Your task to perform on an android device: open app "AliExpress" Image 0: 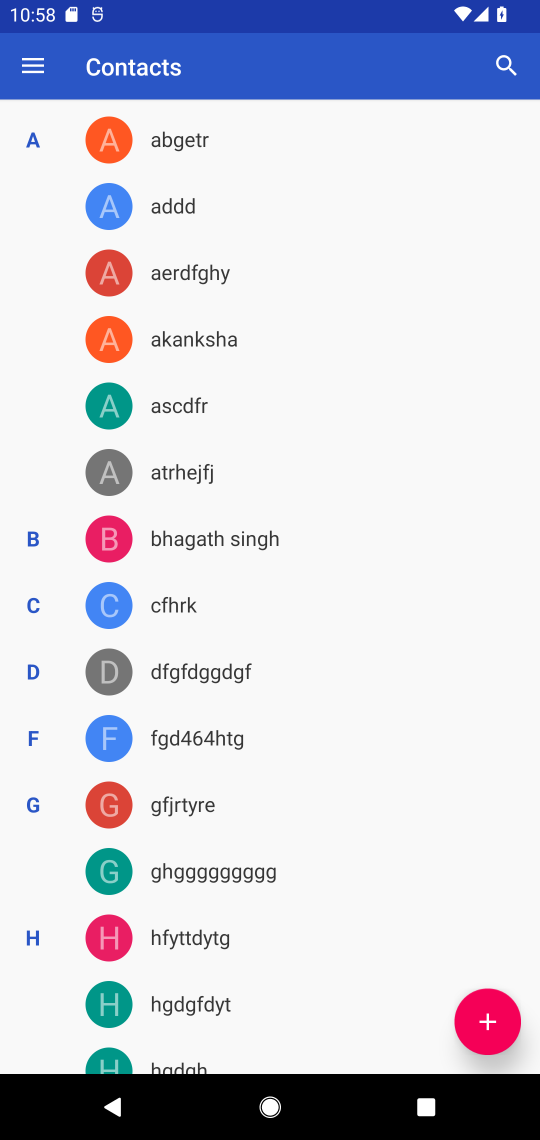
Step 0: press home button
Your task to perform on an android device: open app "AliExpress" Image 1: 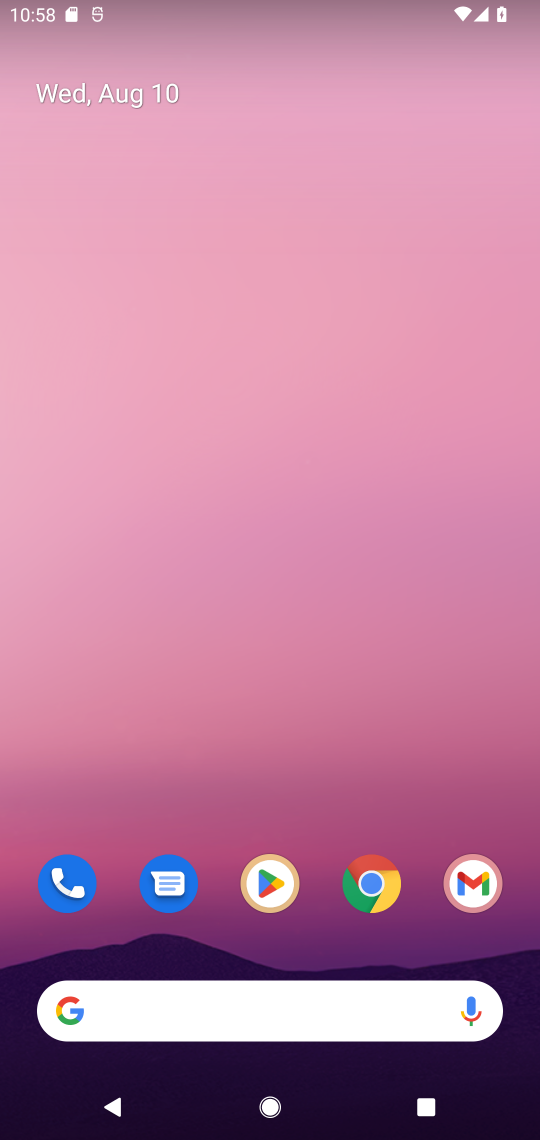
Step 1: click (262, 880)
Your task to perform on an android device: open app "AliExpress" Image 2: 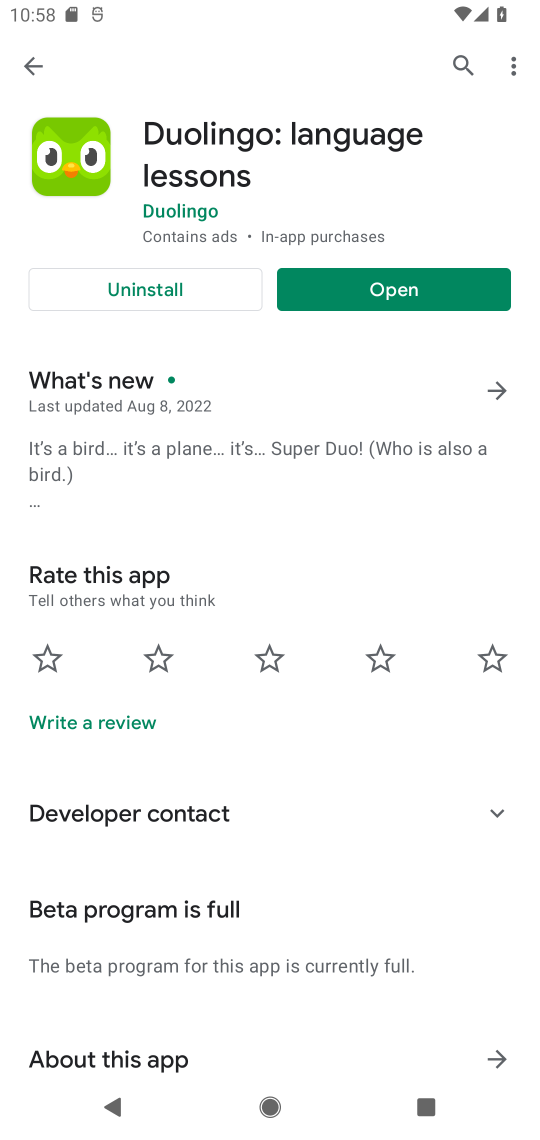
Step 2: click (459, 58)
Your task to perform on an android device: open app "AliExpress" Image 3: 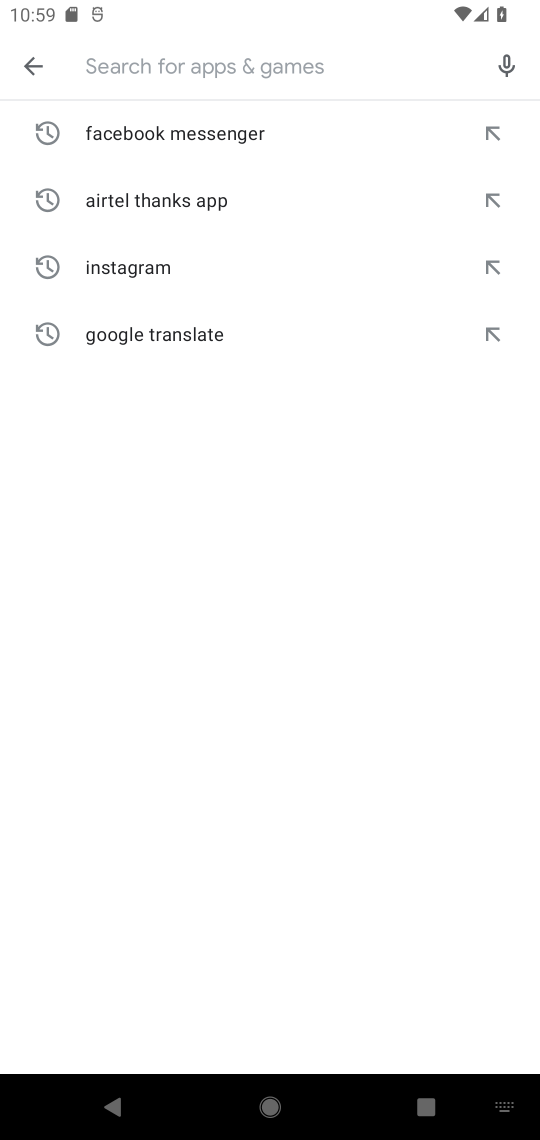
Step 3: type "AliExpress"
Your task to perform on an android device: open app "AliExpress" Image 4: 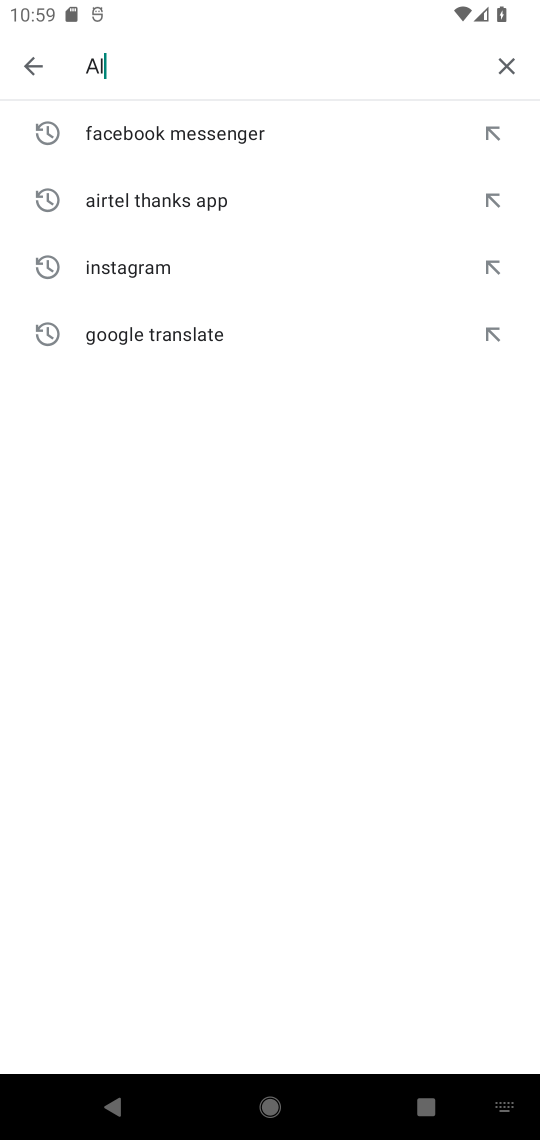
Step 4: type ""
Your task to perform on an android device: open app "AliExpress" Image 5: 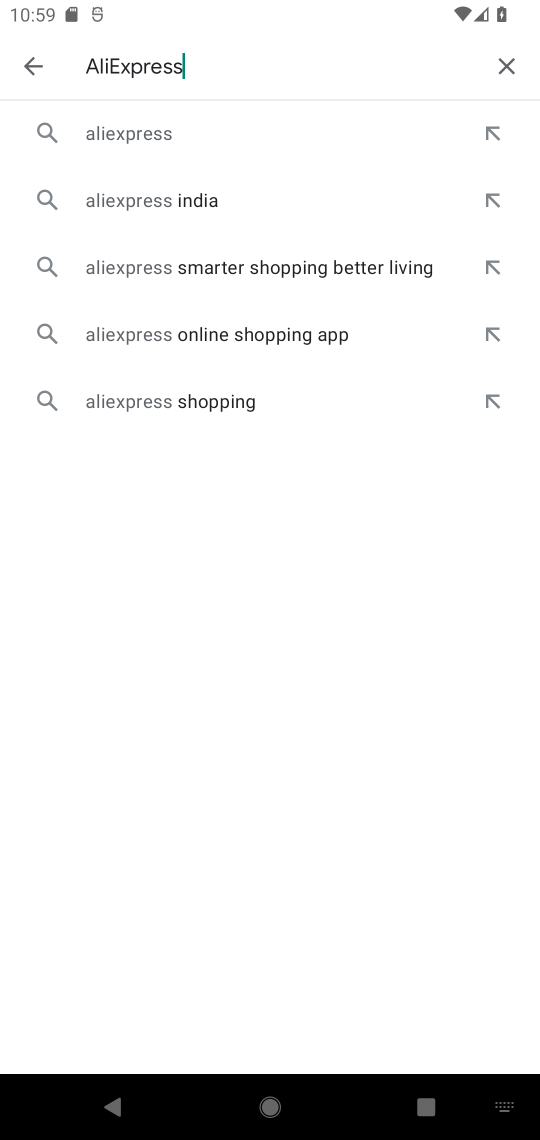
Step 5: click (94, 134)
Your task to perform on an android device: open app "AliExpress" Image 6: 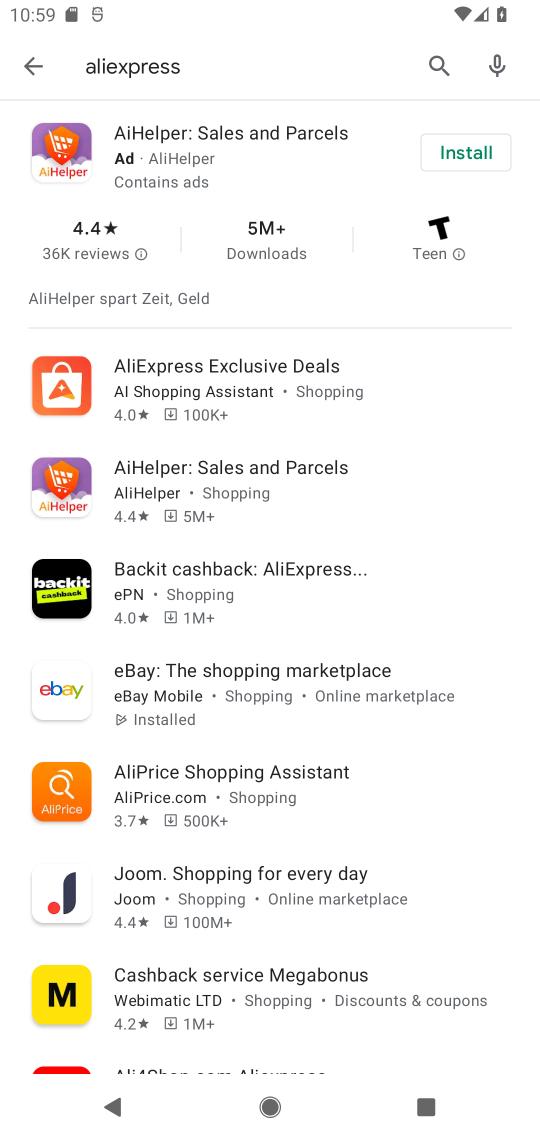
Step 6: click (237, 347)
Your task to perform on an android device: open app "AliExpress" Image 7: 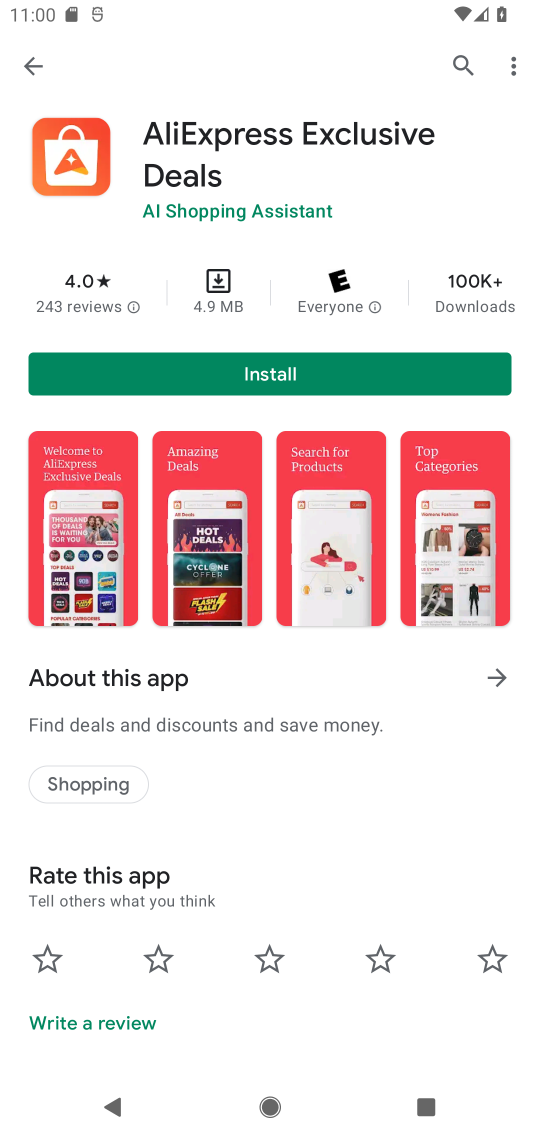
Step 7: click (296, 371)
Your task to perform on an android device: open app "AliExpress" Image 8: 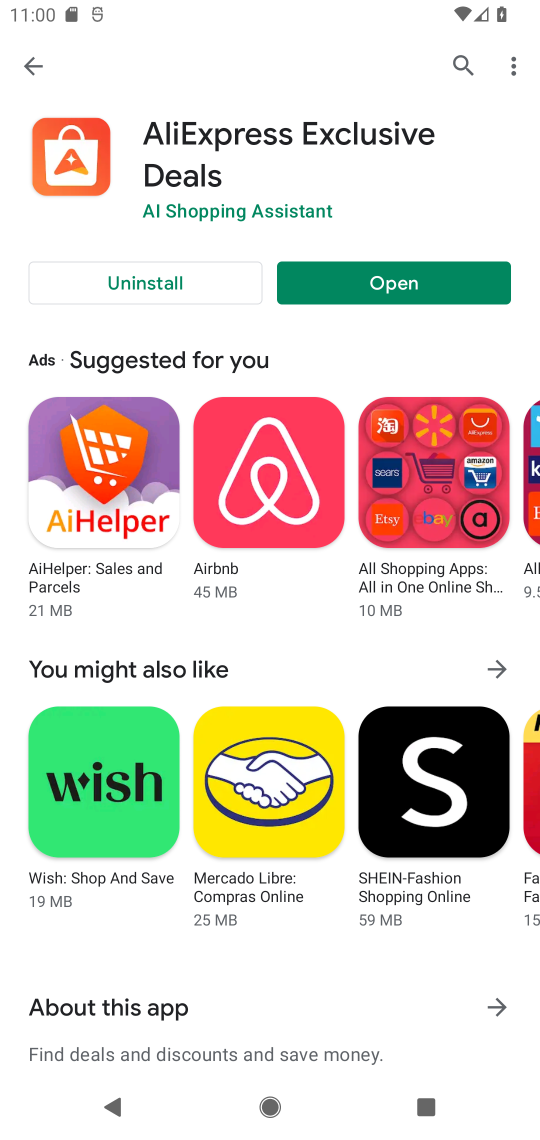
Step 8: click (395, 283)
Your task to perform on an android device: open app "AliExpress" Image 9: 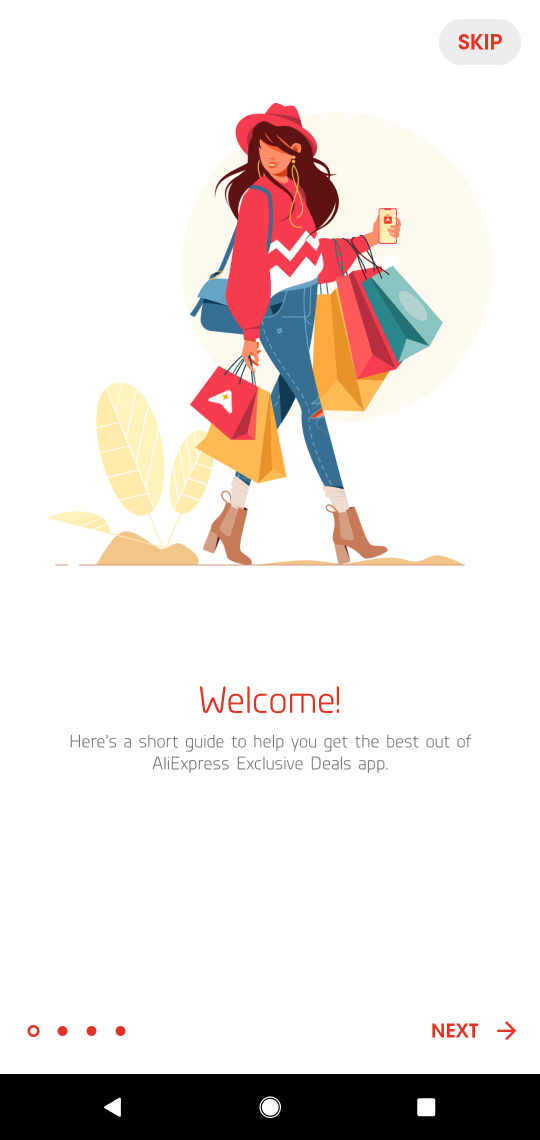
Step 9: task complete